Your task to perform on an android device: delete browsing data in the chrome app Image 0: 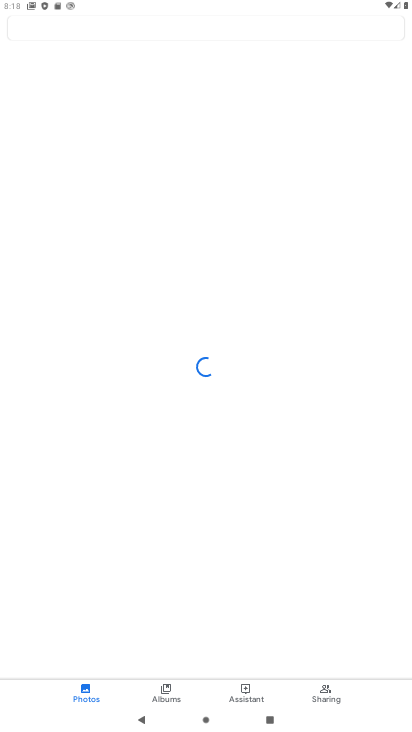
Step 0: press home button
Your task to perform on an android device: delete browsing data in the chrome app Image 1: 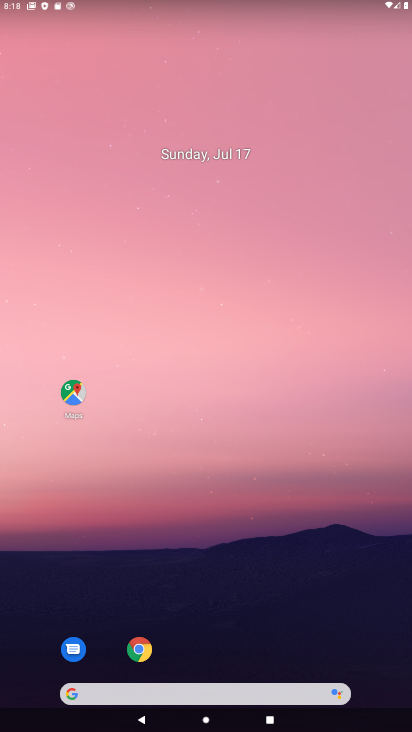
Step 1: drag from (267, 624) to (376, 228)
Your task to perform on an android device: delete browsing data in the chrome app Image 2: 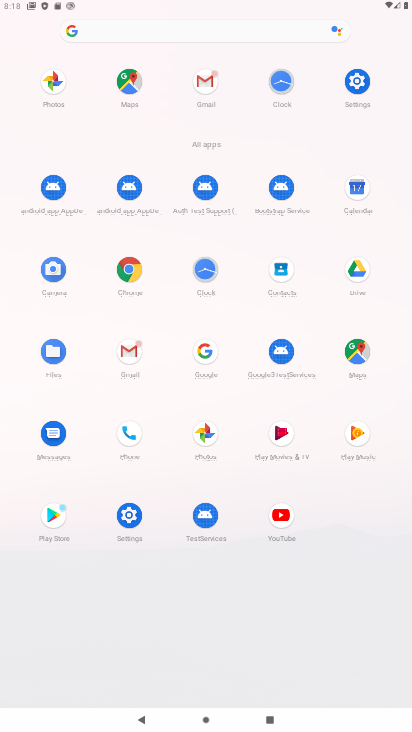
Step 2: click (133, 280)
Your task to perform on an android device: delete browsing data in the chrome app Image 3: 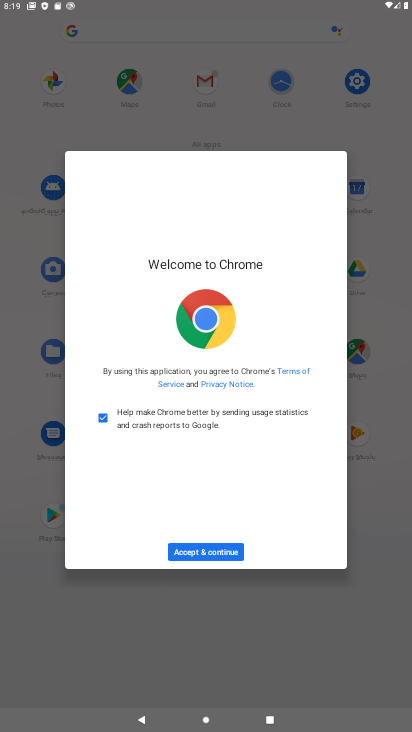
Step 3: click (196, 552)
Your task to perform on an android device: delete browsing data in the chrome app Image 4: 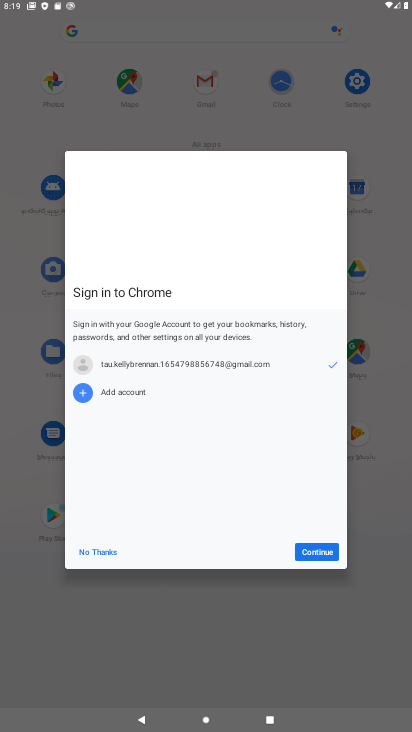
Step 4: click (328, 555)
Your task to perform on an android device: delete browsing data in the chrome app Image 5: 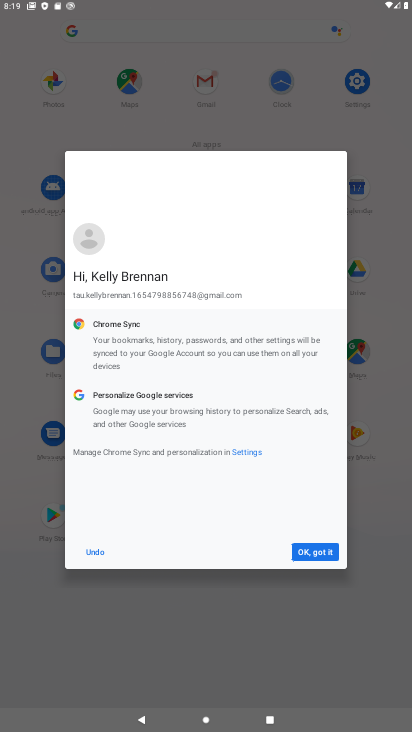
Step 5: click (326, 557)
Your task to perform on an android device: delete browsing data in the chrome app Image 6: 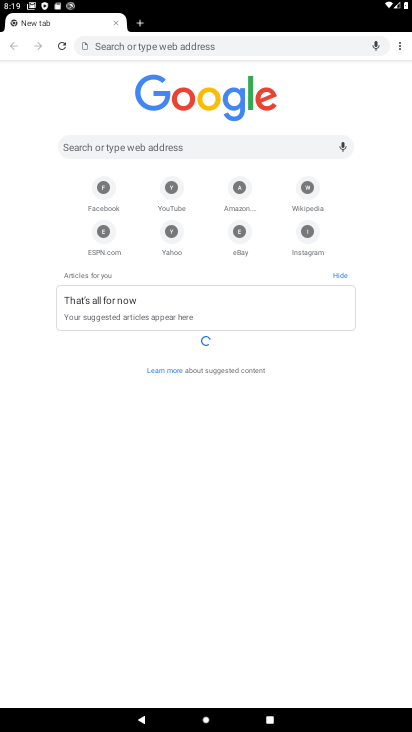
Step 6: click (405, 47)
Your task to perform on an android device: delete browsing data in the chrome app Image 7: 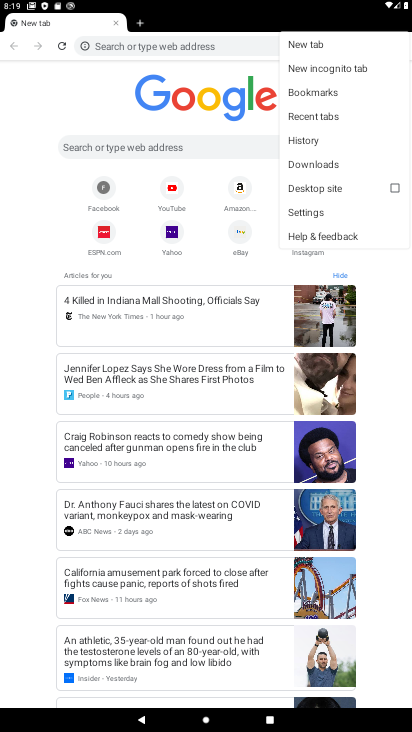
Step 7: click (312, 138)
Your task to perform on an android device: delete browsing data in the chrome app Image 8: 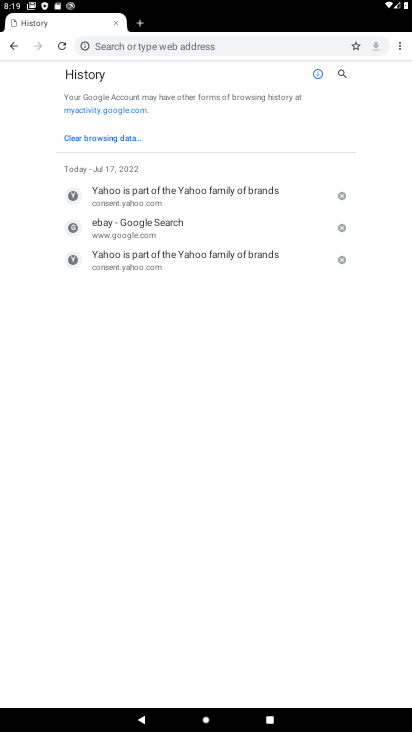
Step 8: click (108, 142)
Your task to perform on an android device: delete browsing data in the chrome app Image 9: 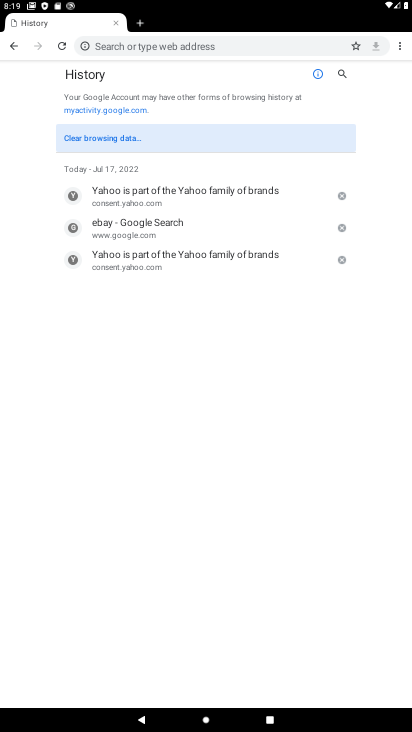
Step 9: click (105, 136)
Your task to perform on an android device: delete browsing data in the chrome app Image 10: 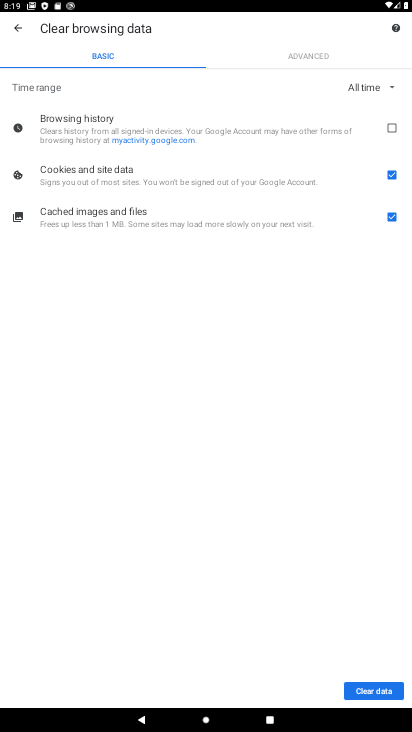
Step 10: click (387, 127)
Your task to perform on an android device: delete browsing data in the chrome app Image 11: 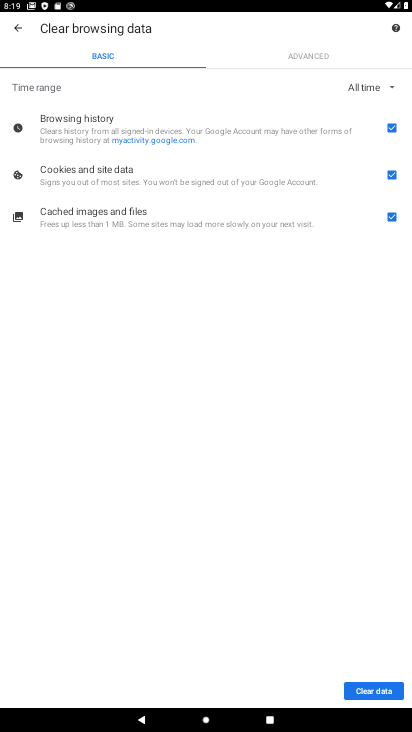
Step 11: click (389, 220)
Your task to perform on an android device: delete browsing data in the chrome app Image 12: 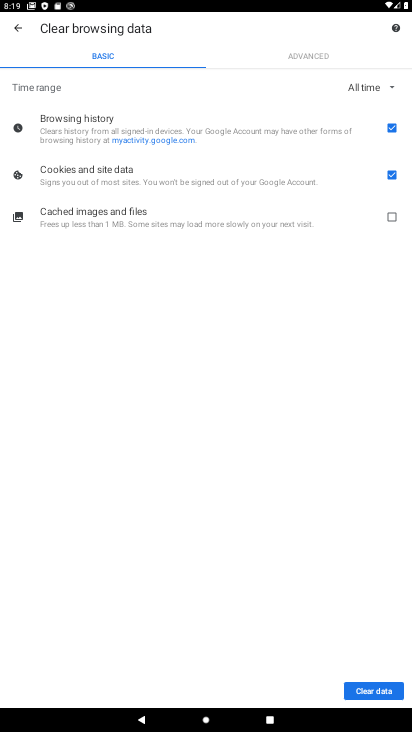
Step 12: click (389, 172)
Your task to perform on an android device: delete browsing data in the chrome app Image 13: 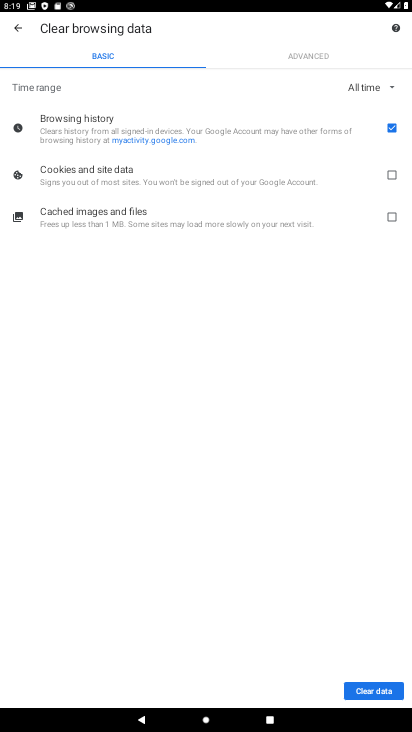
Step 13: click (364, 687)
Your task to perform on an android device: delete browsing data in the chrome app Image 14: 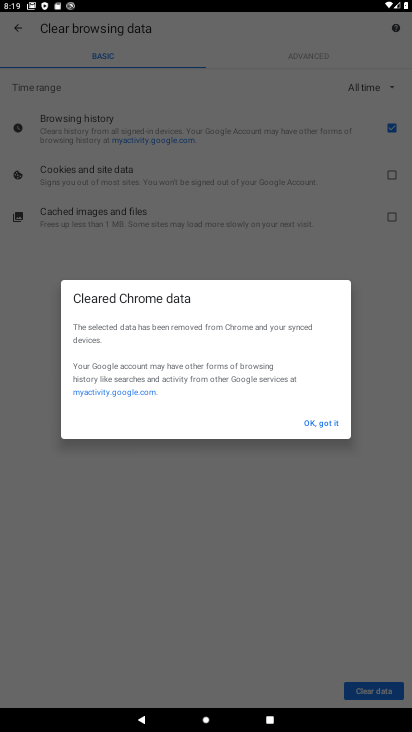
Step 14: click (332, 422)
Your task to perform on an android device: delete browsing data in the chrome app Image 15: 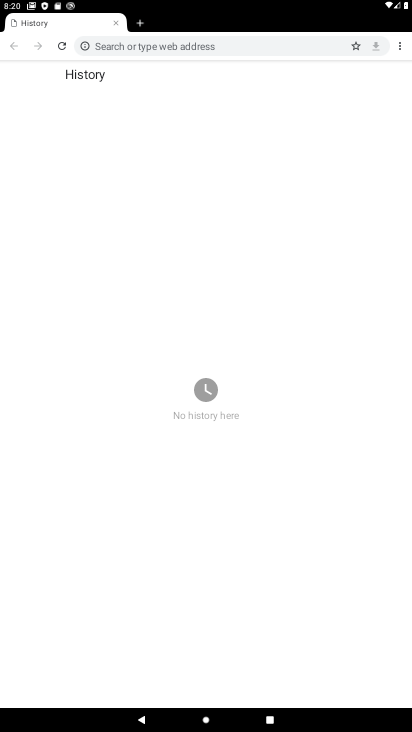
Step 15: task complete